Your task to perform on an android device: Open the calendar and show me this week's events? Image 0: 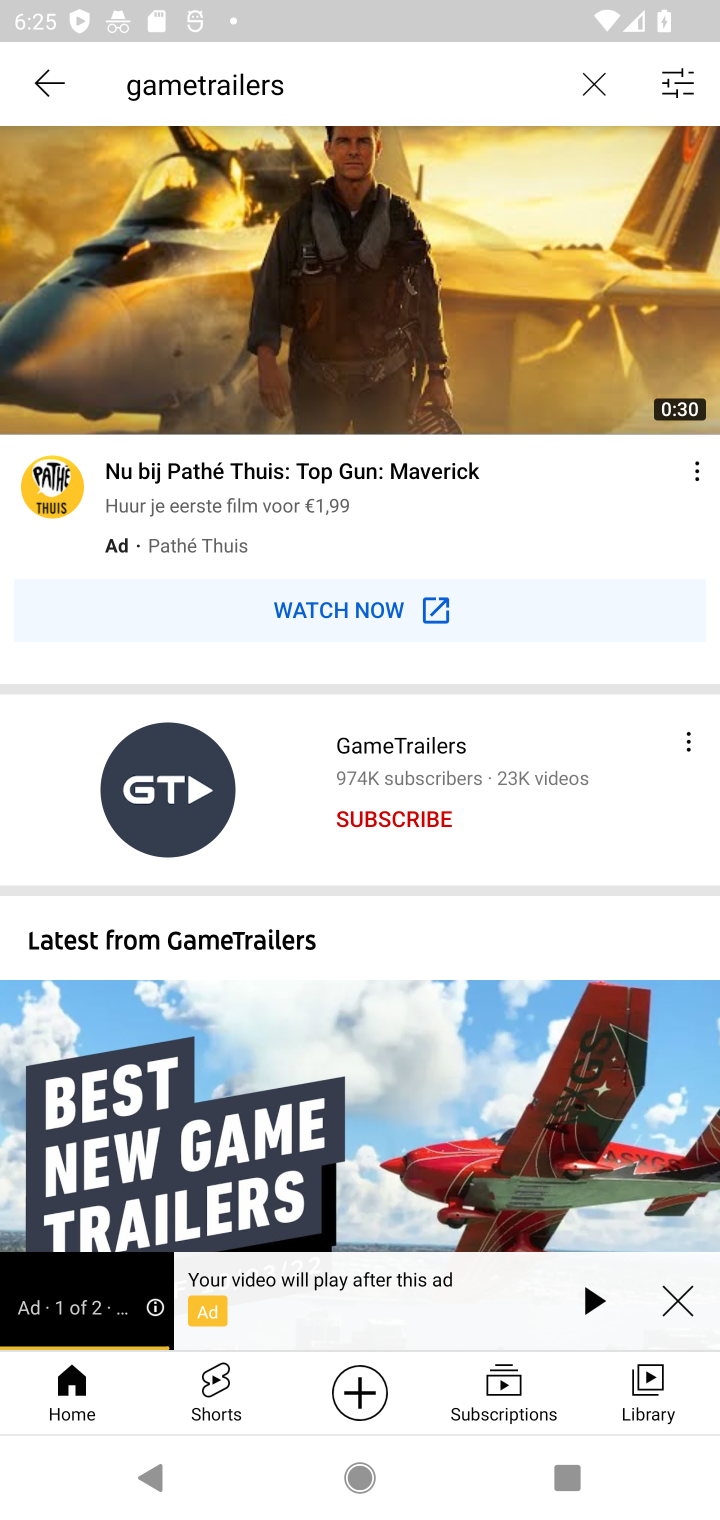
Step 0: press home button
Your task to perform on an android device: Open the calendar and show me this week's events? Image 1: 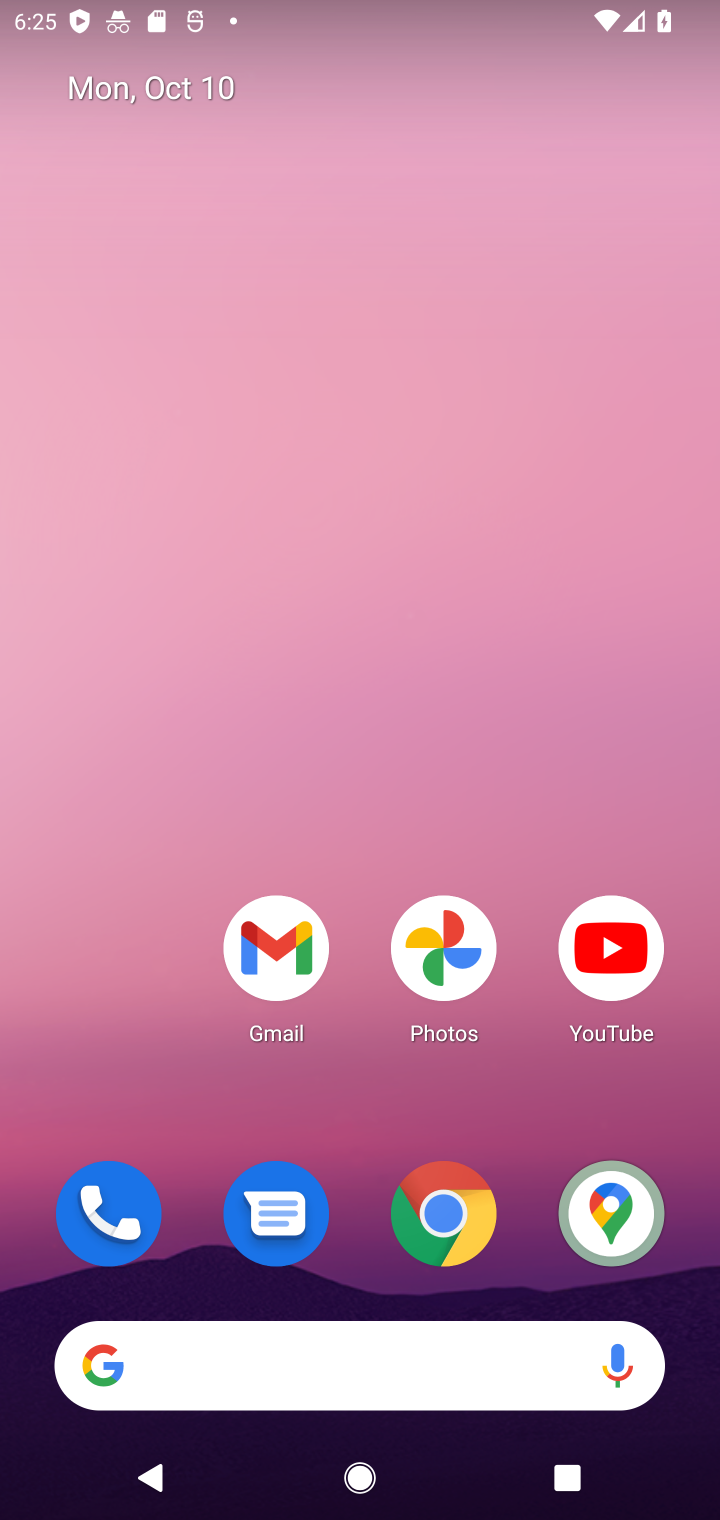
Step 1: drag from (147, 913) to (283, 25)
Your task to perform on an android device: Open the calendar and show me this week's events? Image 2: 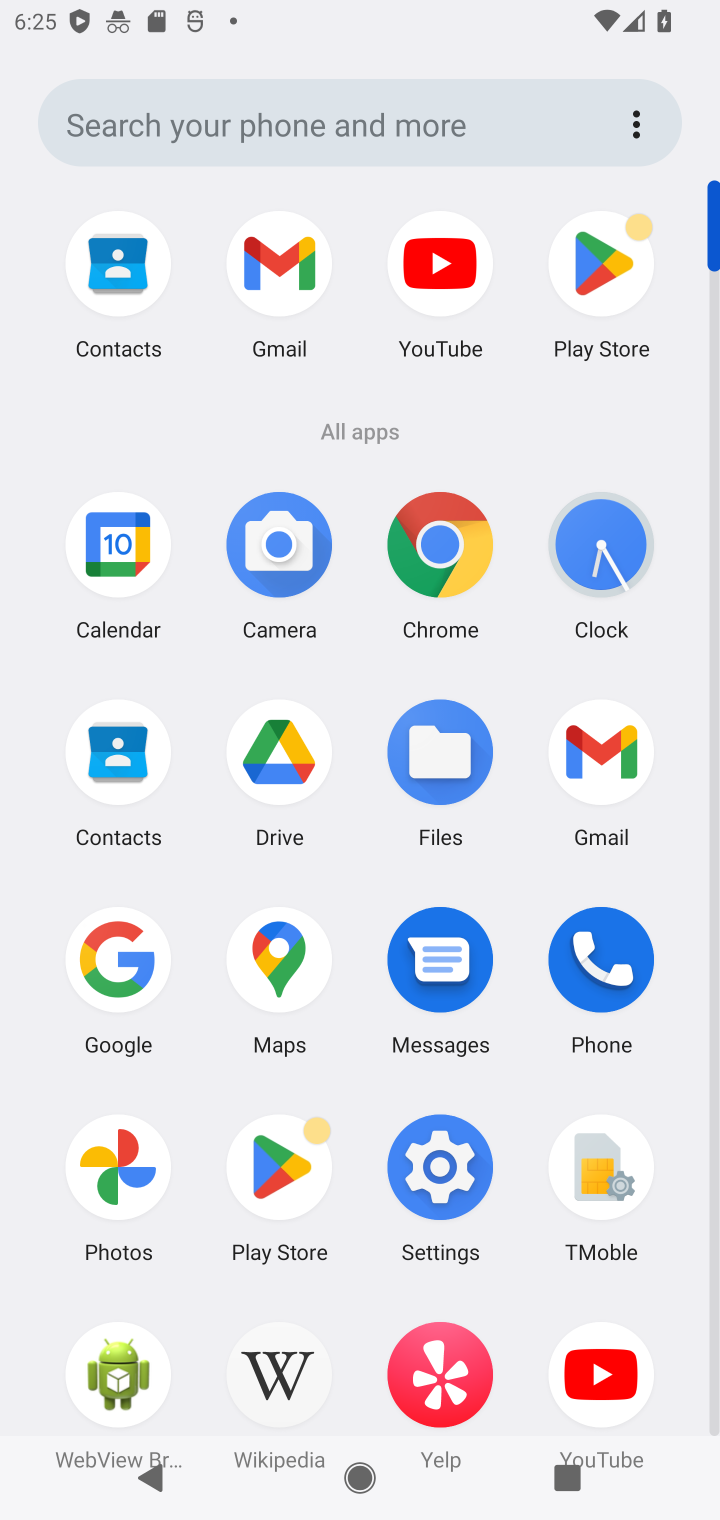
Step 2: click (120, 563)
Your task to perform on an android device: Open the calendar and show me this week's events? Image 3: 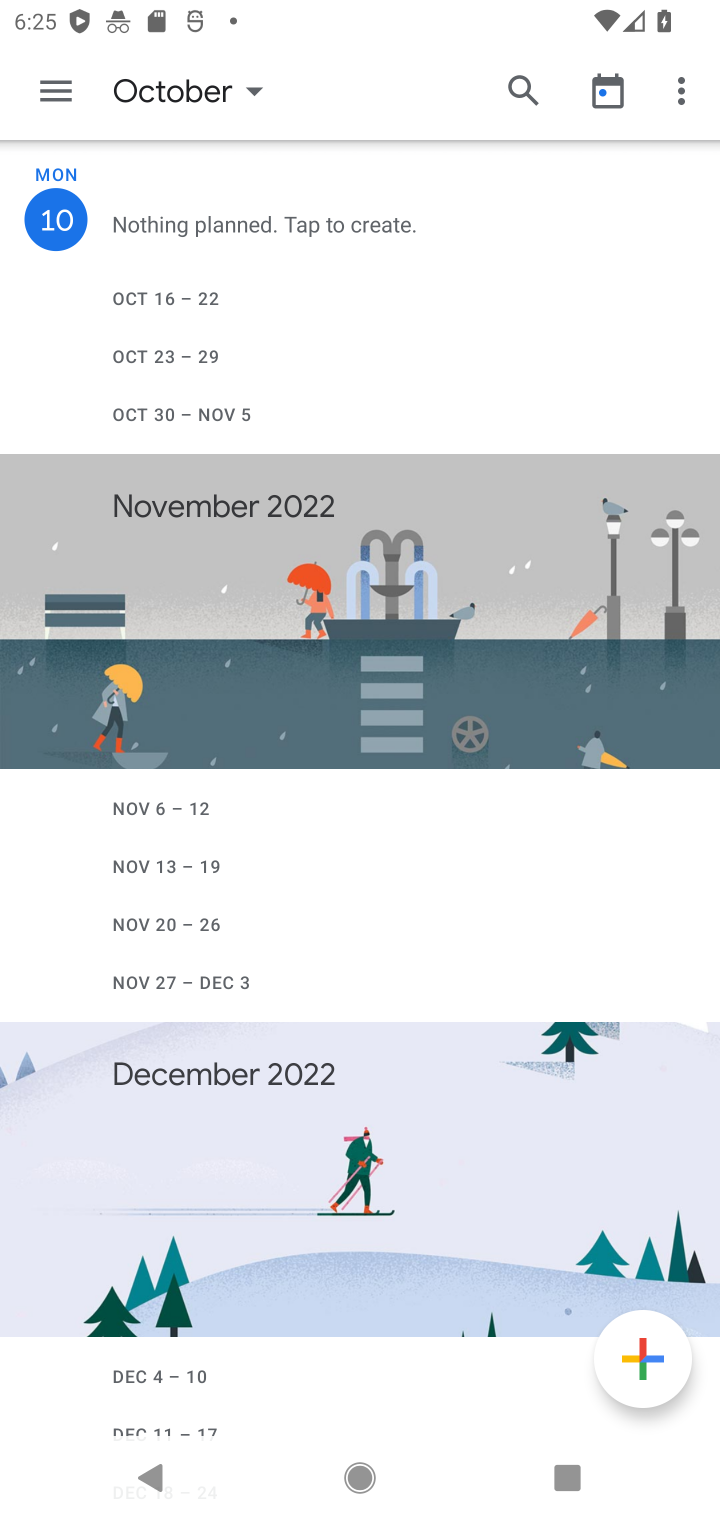
Step 3: click (60, 83)
Your task to perform on an android device: Open the calendar and show me this week's events? Image 4: 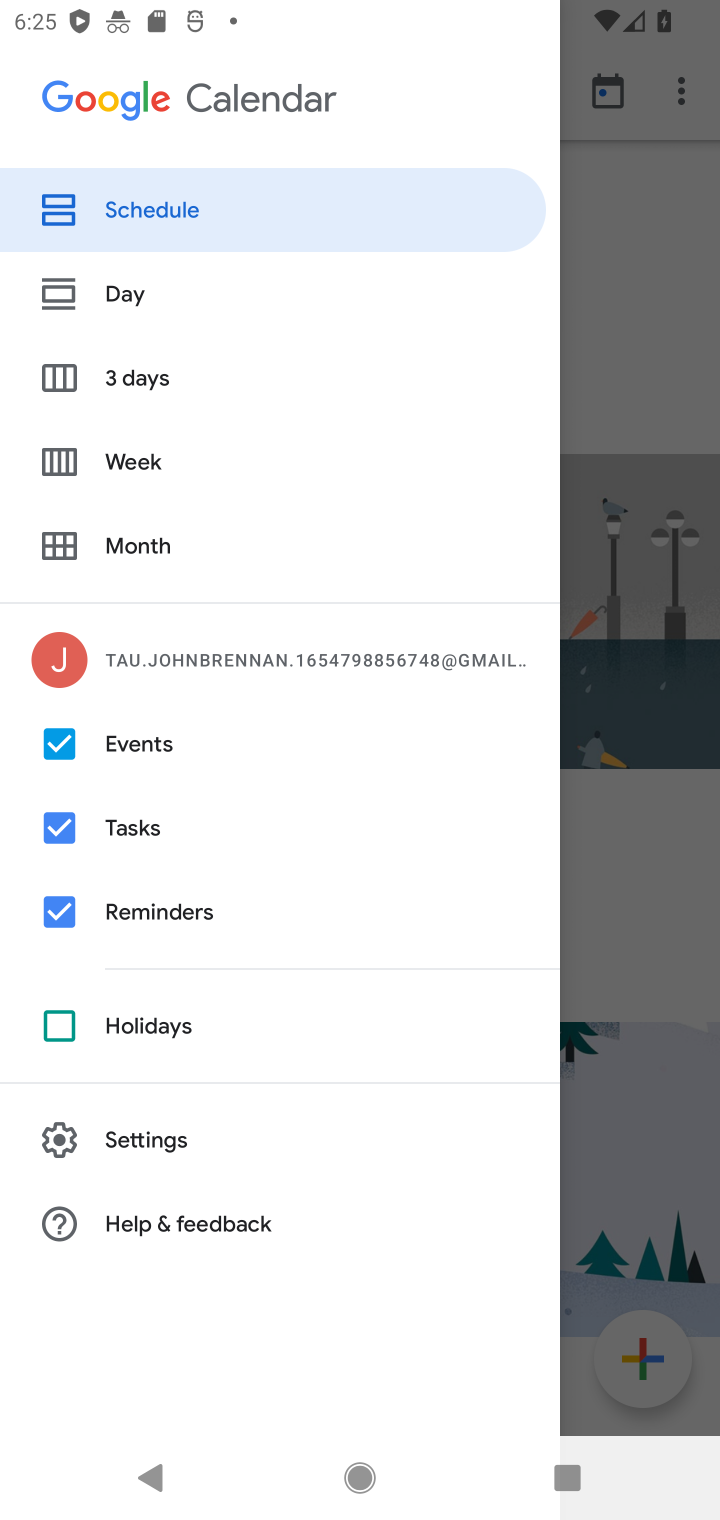
Step 4: click (158, 206)
Your task to perform on an android device: Open the calendar and show me this week's events? Image 5: 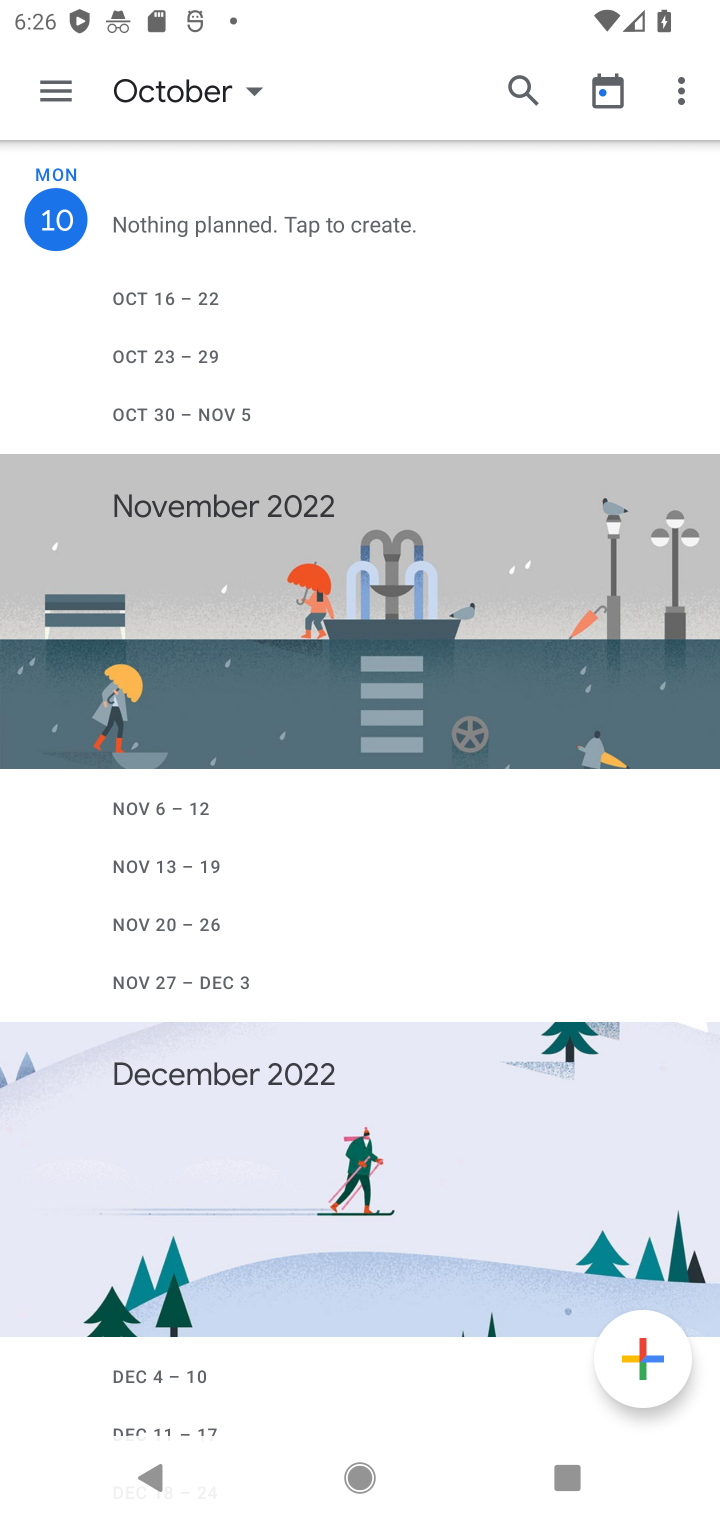
Step 5: task complete